Your task to perform on an android device: toggle pop-ups in chrome Image 0: 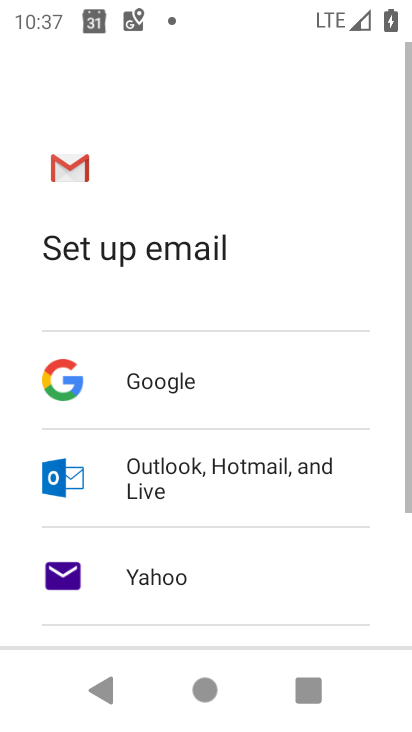
Step 0: press home button
Your task to perform on an android device: toggle pop-ups in chrome Image 1: 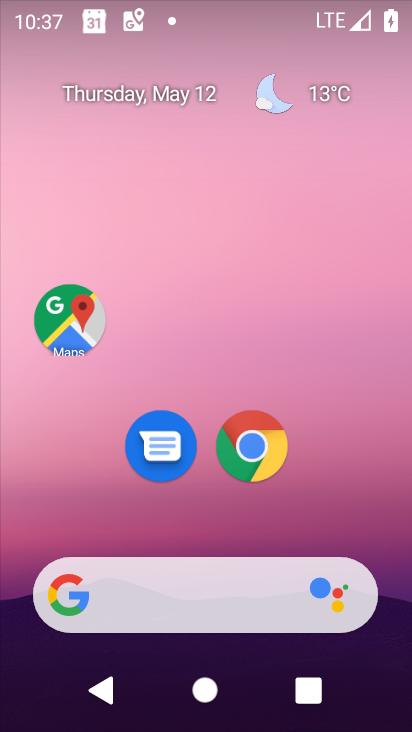
Step 1: drag from (249, 627) to (267, 27)
Your task to perform on an android device: toggle pop-ups in chrome Image 2: 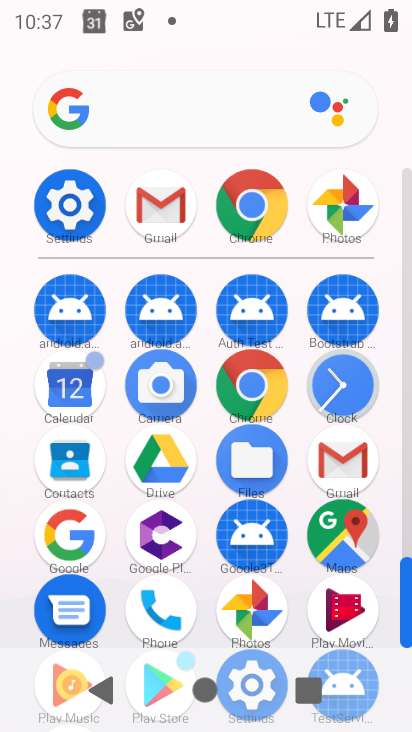
Step 2: click (250, 396)
Your task to perform on an android device: toggle pop-ups in chrome Image 3: 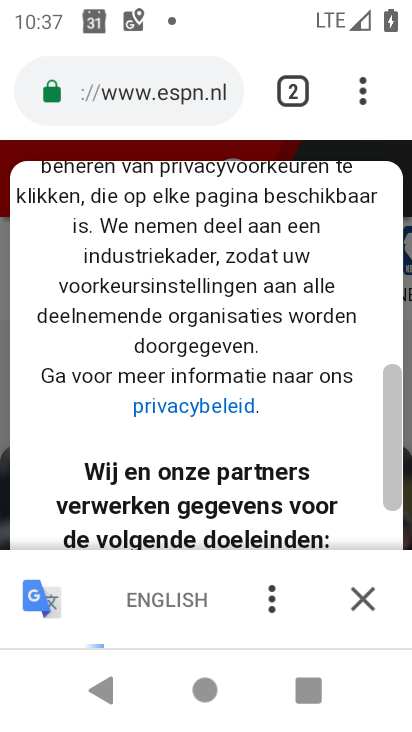
Step 3: drag from (365, 83) to (101, 482)
Your task to perform on an android device: toggle pop-ups in chrome Image 4: 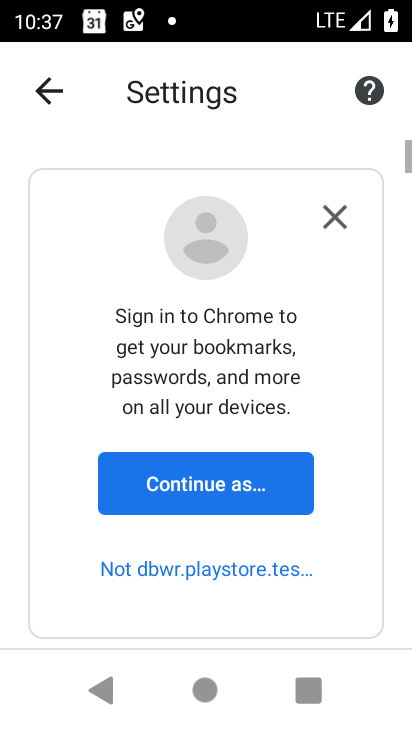
Step 4: drag from (145, 565) to (266, 86)
Your task to perform on an android device: toggle pop-ups in chrome Image 5: 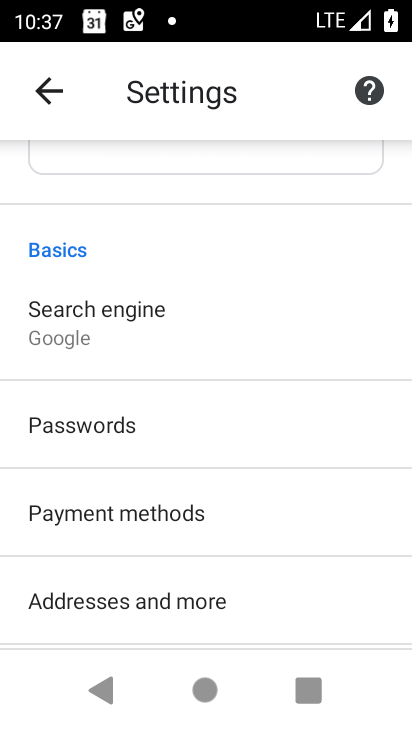
Step 5: drag from (260, 595) to (372, 169)
Your task to perform on an android device: toggle pop-ups in chrome Image 6: 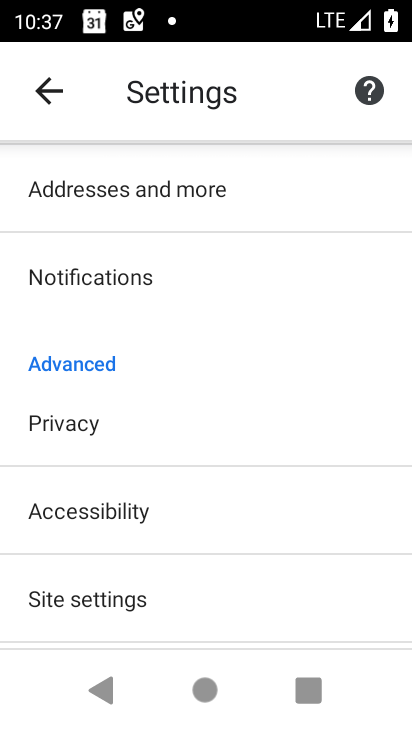
Step 6: drag from (137, 601) to (200, 381)
Your task to perform on an android device: toggle pop-ups in chrome Image 7: 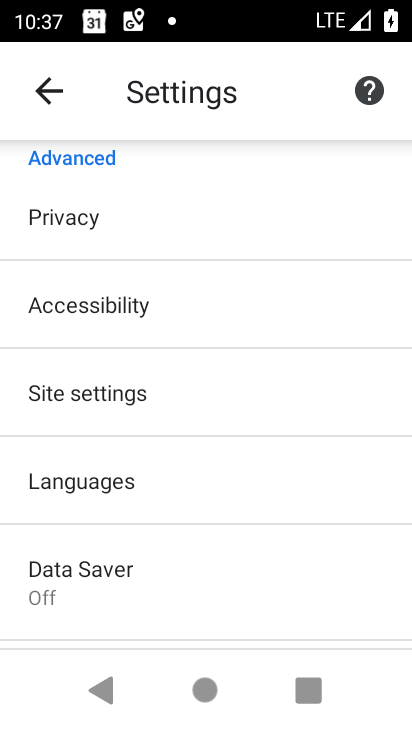
Step 7: click (148, 394)
Your task to perform on an android device: toggle pop-ups in chrome Image 8: 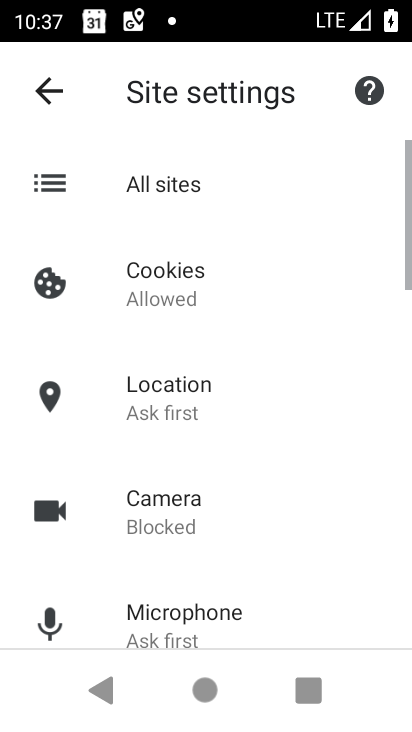
Step 8: drag from (202, 582) to (247, 113)
Your task to perform on an android device: toggle pop-ups in chrome Image 9: 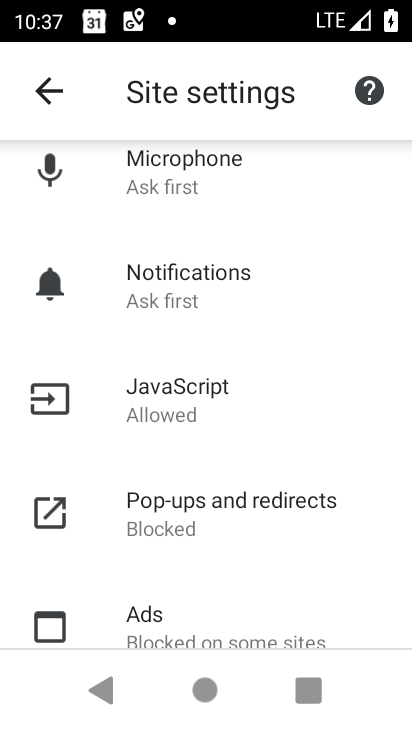
Step 9: click (248, 530)
Your task to perform on an android device: toggle pop-ups in chrome Image 10: 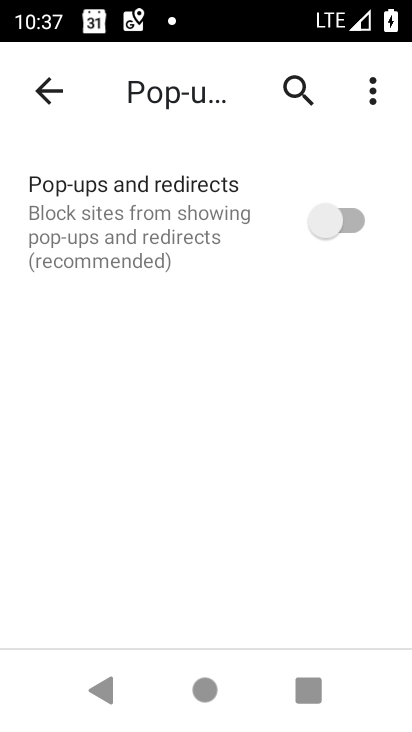
Step 10: click (362, 217)
Your task to perform on an android device: toggle pop-ups in chrome Image 11: 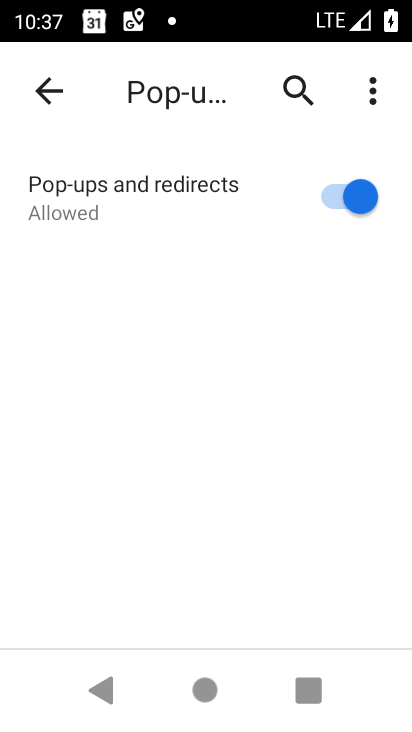
Step 11: task complete